Your task to perform on an android device: What's the weather going to be this weekend? Image 0: 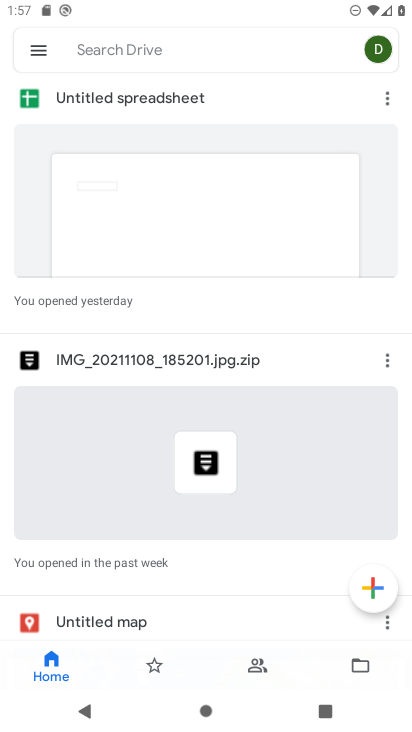
Step 0: press home button
Your task to perform on an android device: What's the weather going to be this weekend? Image 1: 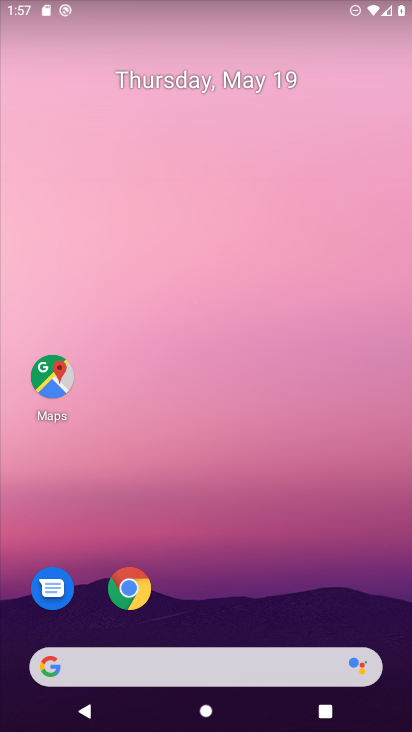
Step 1: click (132, 663)
Your task to perform on an android device: What's the weather going to be this weekend? Image 2: 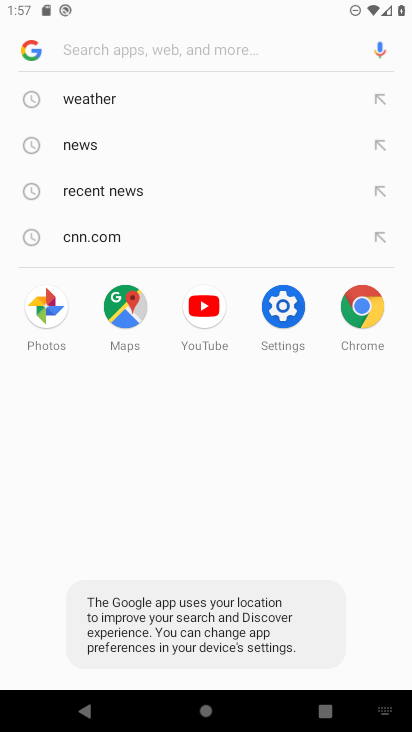
Step 2: click (92, 104)
Your task to perform on an android device: What's the weather going to be this weekend? Image 3: 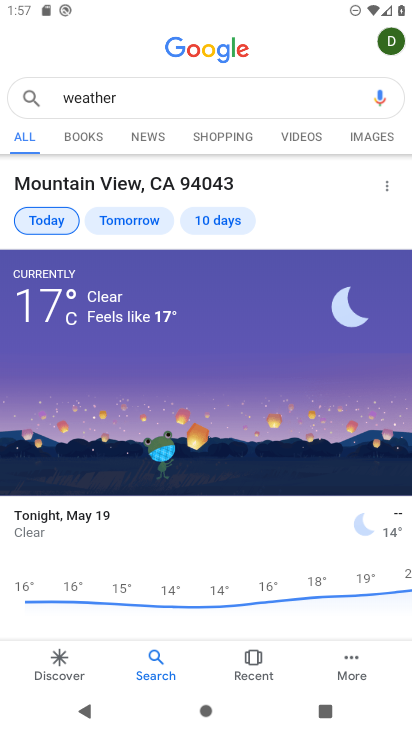
Step 3: click (219, 217)
Your task to perform on an android device: What's the weather going to be this weekend? Image 4: 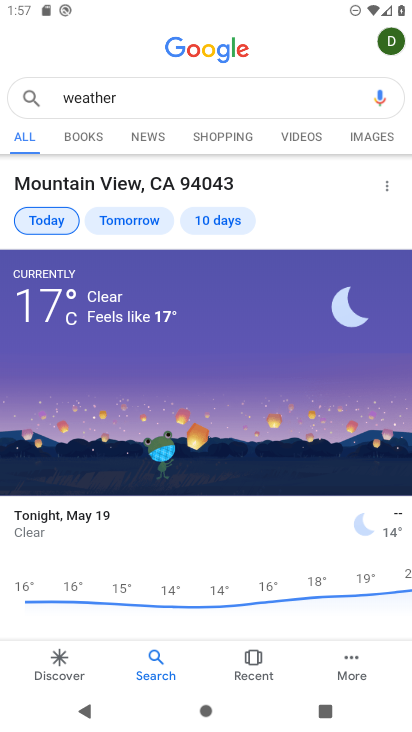
Step 4: click (217, 220)
Your task to perform on an android device: What's the weather going to be this weekend? Image 5: 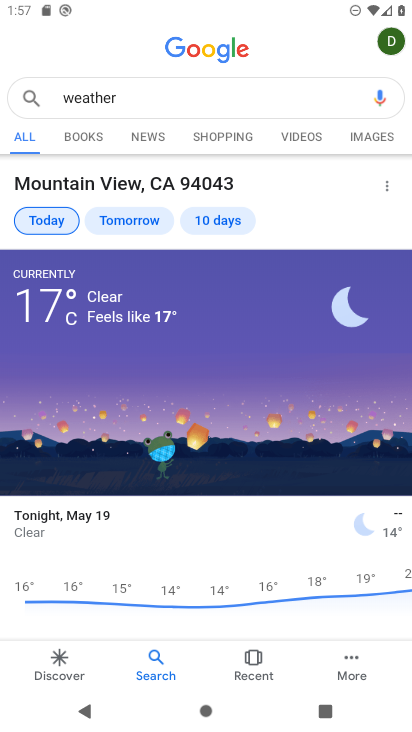
Step 5: click (207, 221)
Your task to perform on an android device: What's the weather going to be this weekend? Image 6: 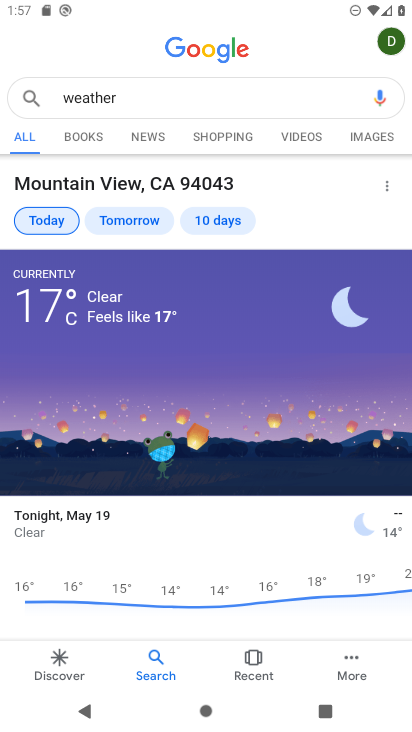
Step 6: click (216, 220)
Your task to perform on an android device: What's the weather going to be this weekend? Image 7: 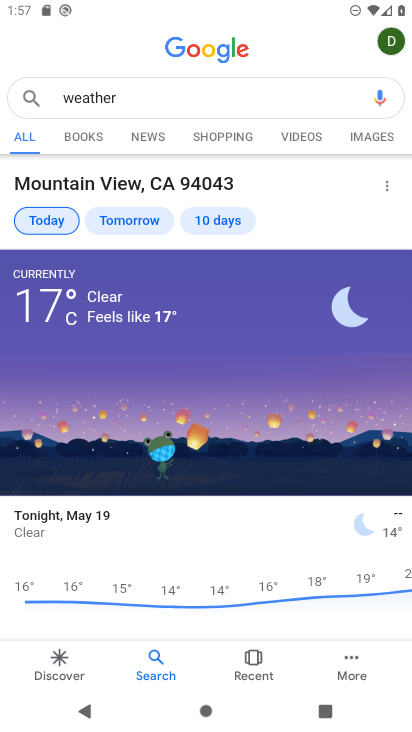
Step 7: drag from (227, 397) to (245, 274)
Your task to perform on an android device: What's the weather going to be this weekend? Image 8: 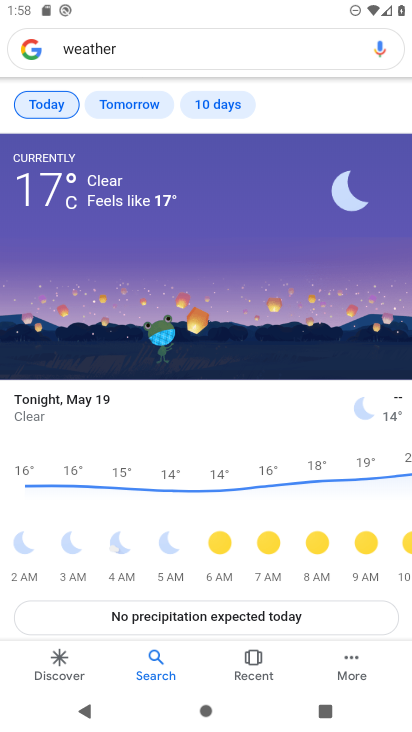
Step 8: click (216, 119)
Your task to perform on an android device: What's the weather going to be this weekend? Image 9: 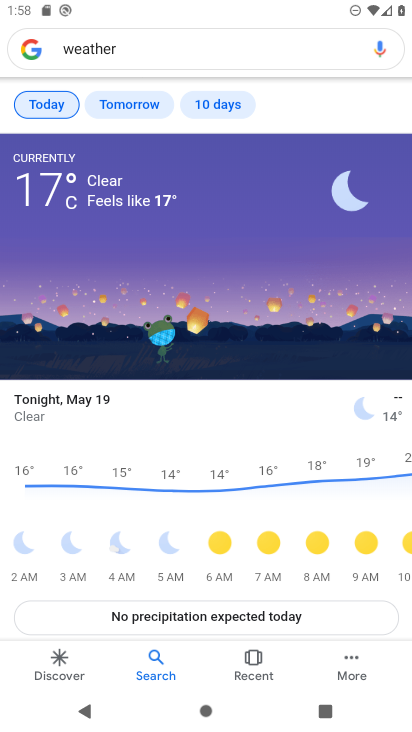
Step 9: click (219, 109)
Your task to perform on an android device: What's the weather going to be this weekend? Image 10: 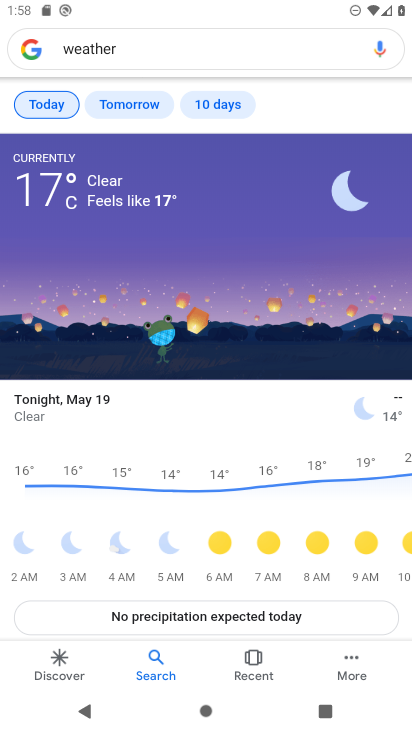
Step 10: task complete